Your task to perform on an android device: Go to Reddit.com Image 0: 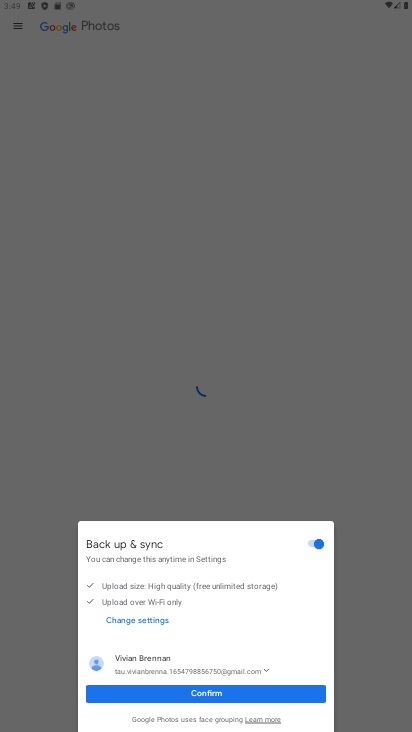
Step 0: press home button
Your task to perform on an android device: Go to Reddit.com Image 1: 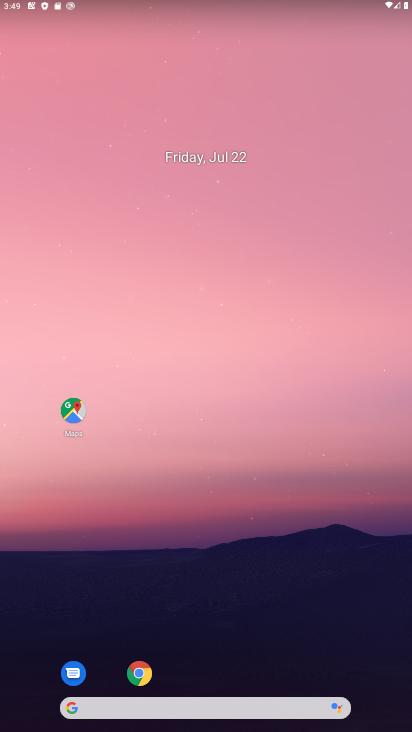
Step 1: click (141, 666)
Your task to perform on an android device: Go to Reddit.com Image 2: 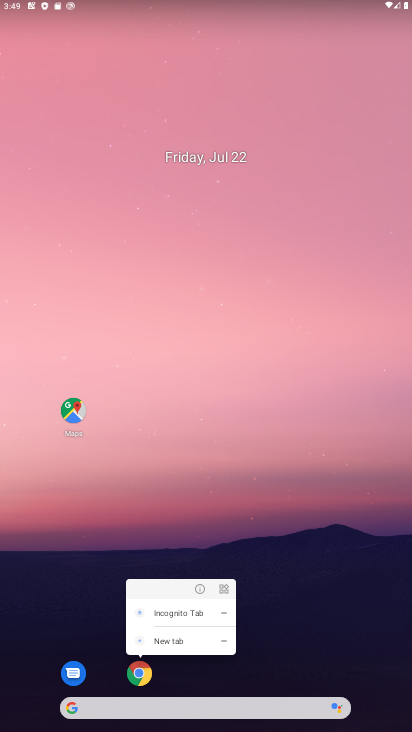
Step 2: click (134, 666)
Your task to perform on an android device: Go to Reddit.com Image 3: 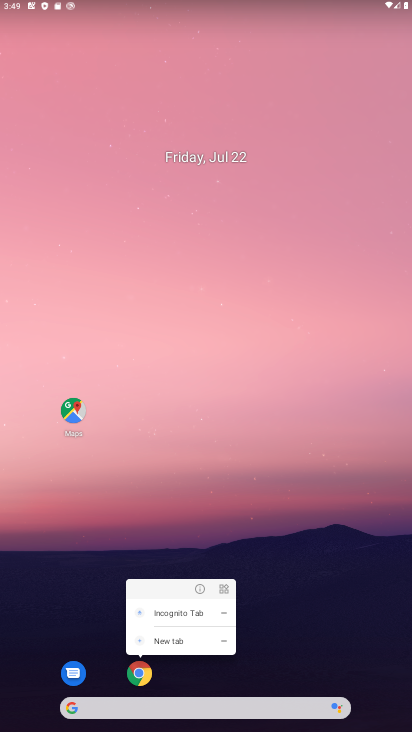
Step 3: click (133, 673)
Your task to perform on an android device: Go to Reddit.com Image 4: 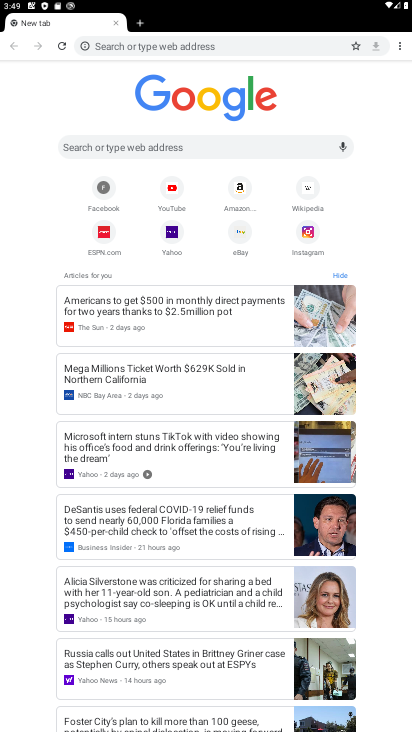
Step 4: click (136, 138)
Your task to perform on an android device: Go to Reddit.com Image 5: 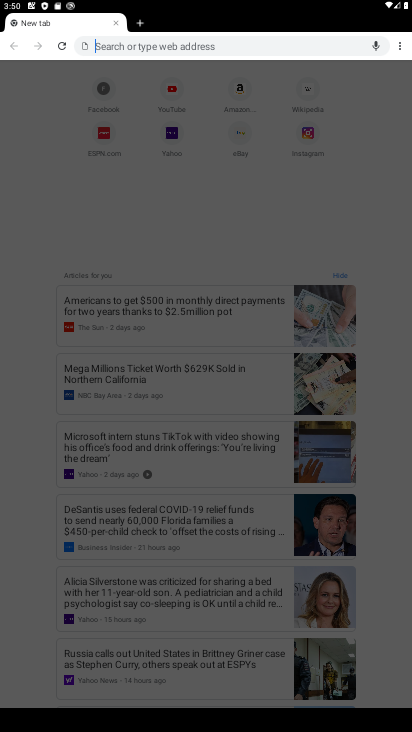
Step 5: type "reddit.com"
Your task to perform on an android device: Go to Reddit.com Image 6: 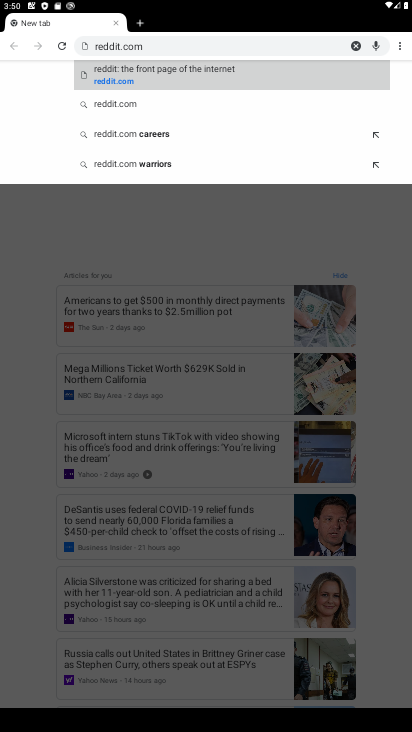
Step 6: click (108, 74)
Your task to perform on an android device: Go to Reddit.com Image 7: 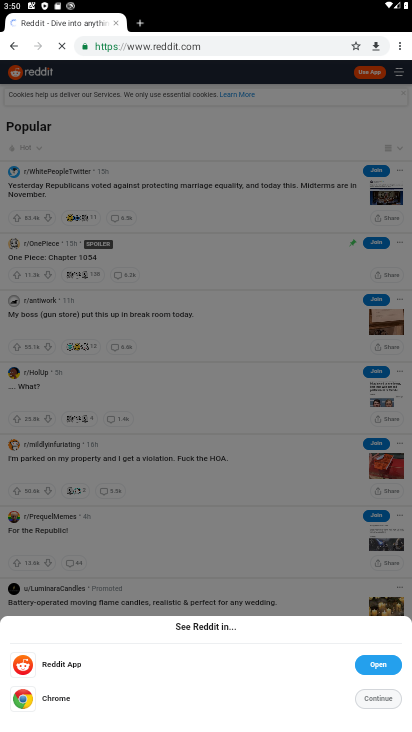
Step 7: task complete